Your task to perform on an android device: uninstall "Flipkart Online Shopping App" Image 0: 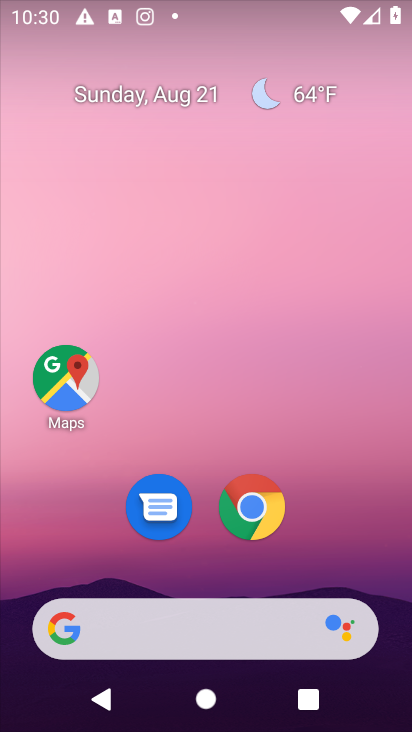
Step 0: drag from (184, 216) to (184, 144)
Your task to perform on an android device: uninstall "Flipkart Online Shopping App" Image 1: 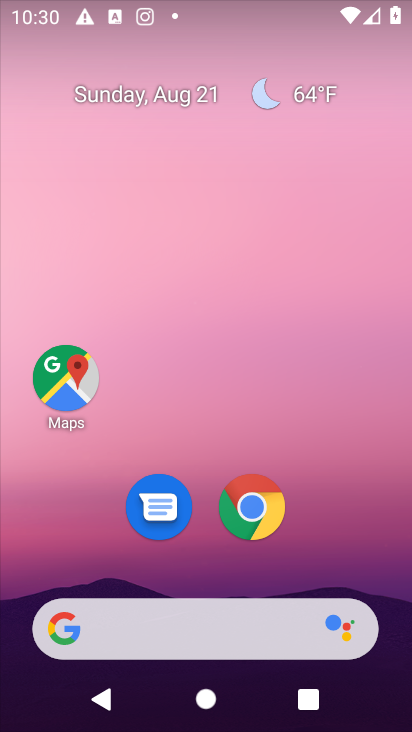
Step 1: drag from (217, 37) to (250, 111)
Your task to perform on an android device: uninstall "Flipkart Online Shopping App" Image 2: 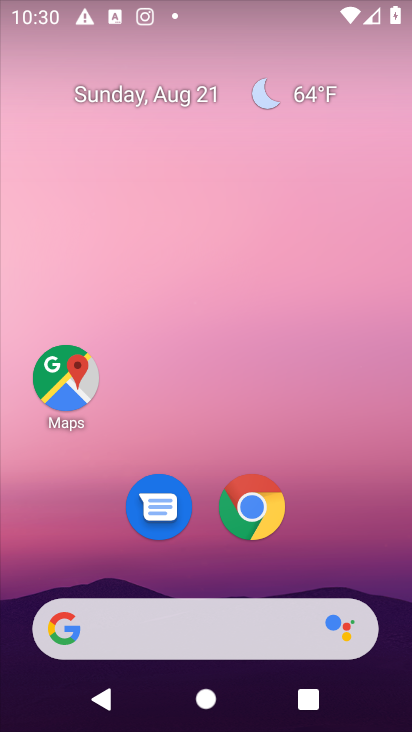
Step 2: drag from (180, 440) to (193, 106)
Your task to perform on an android device: uninstall "Flipkart Online Shopping App" Image 3: 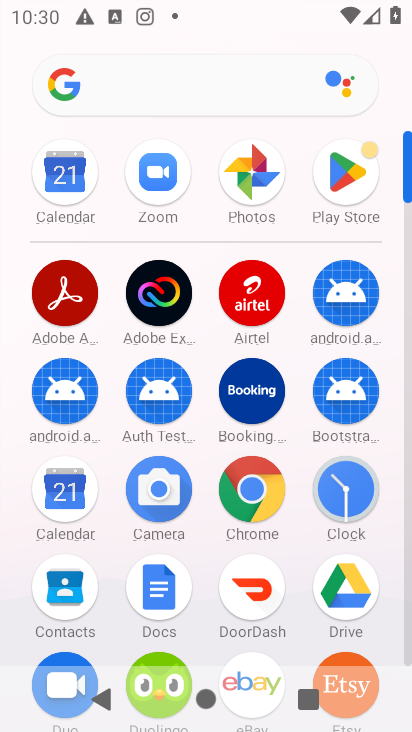
Step 3: click (340, 180)
Your task to perform on an android device: uninstall "Flipkart Online Shopping App" Image 4: 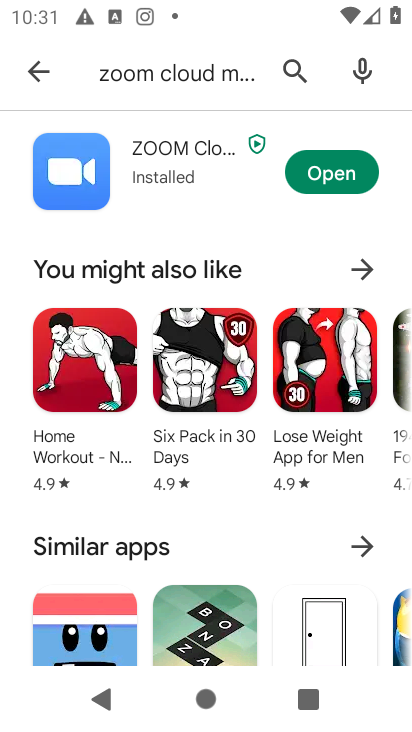
Step 4: click (29, 67)
Your task to perform on an android device: uninstall "Flipkart Online Shopping App" Image 5: 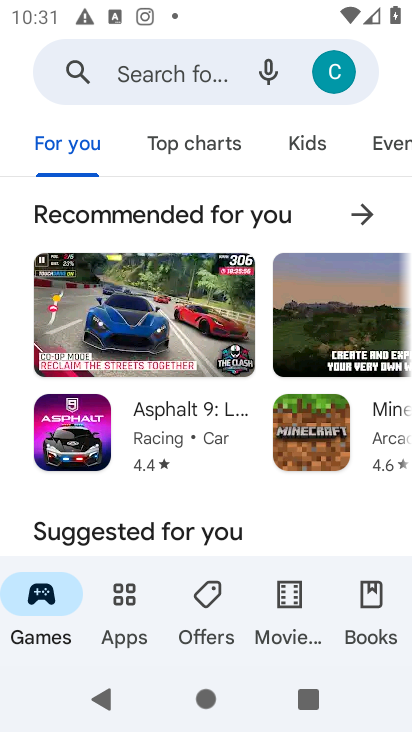
Step 5: click (146, 67)
Your task to perform on an android device: uninstall "Flipkart Online Shopping App" Image 6: 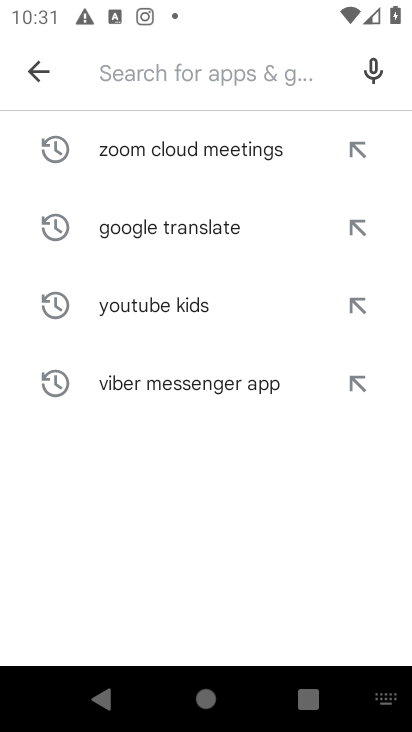
Step 6: type "Flipkart Online Shopping App"
Your task to perform on an android device: uninstall "Flipkart Online Shopping App" Image 7: 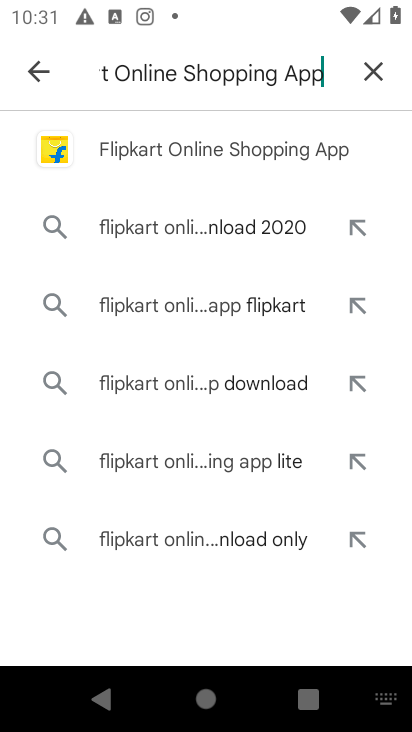
Step 7: click (161, 141)
Your task to perform on an android device: uninstall "Flipkart Online Shopping App" Image 8: 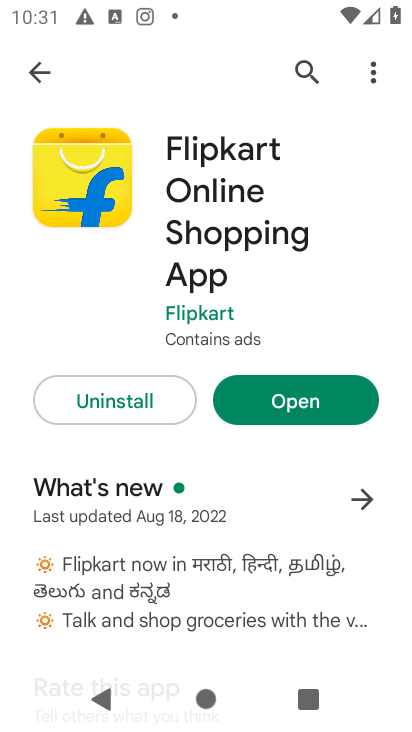
Step 8: task complete